Your task to perform on an android device: Go to calendar. Show me events next week Image 0: 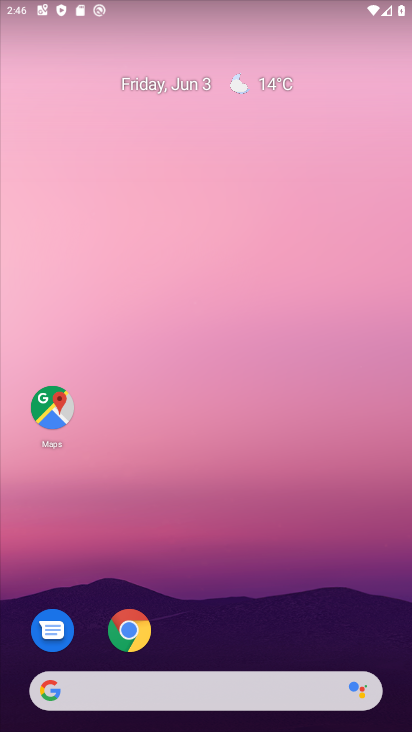
Step 0: drag from (257, 636) to (198, 257)
Your task to perform on an android device: Go to calendar. Show me events next week Image 1: 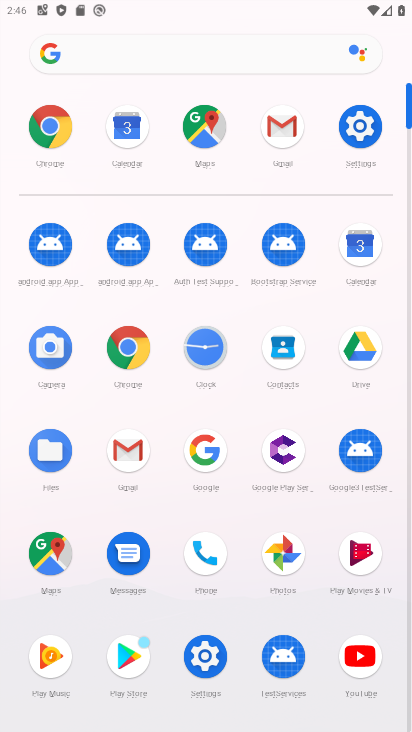
Step 1: click (356, 256)
Your task to perform on an android device: Go to calendar. Show me events next week Image 2: 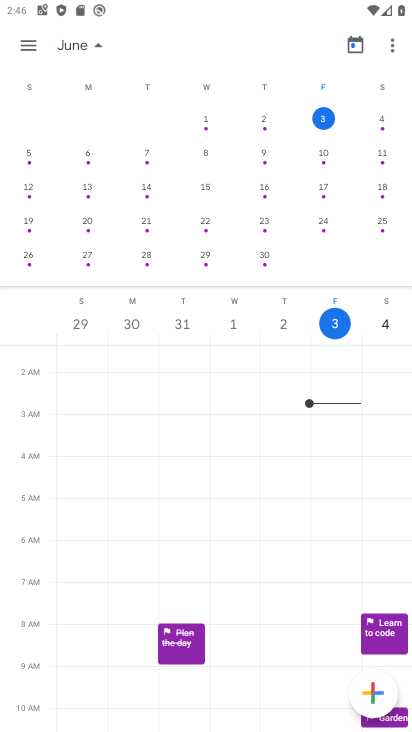
Step 2: click (30, 52)
Your task to perform on an android device: Go to calendar. Show me events next week Image 3: 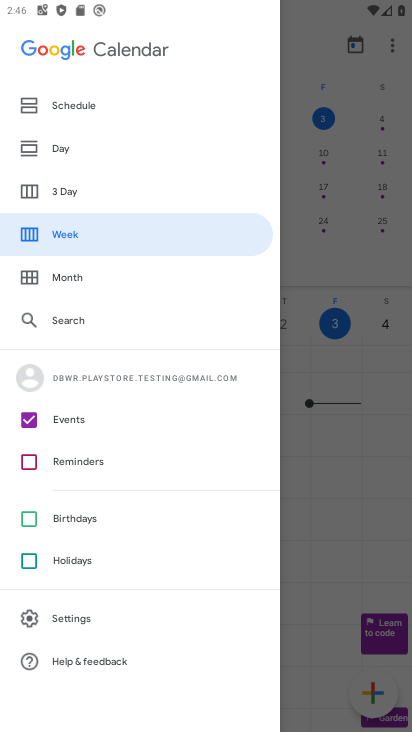
Step 3: click (88, 235)
Your task to perform on an android device: Go to calendar. Show me events next week Image 4: 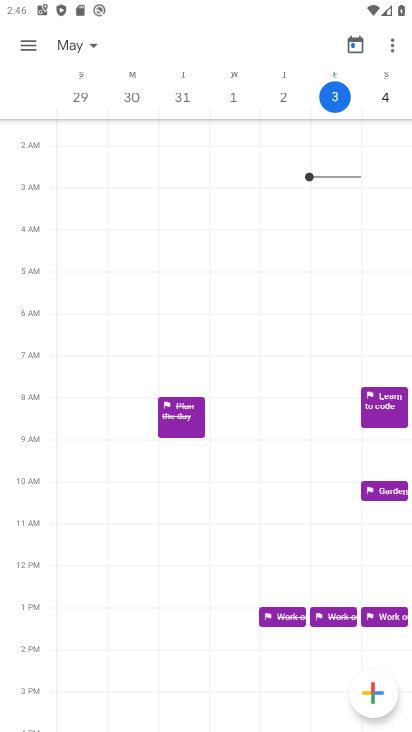
Step 4: task complete